Your task to perform on an android device: Go to Yahoo.com Image 0: 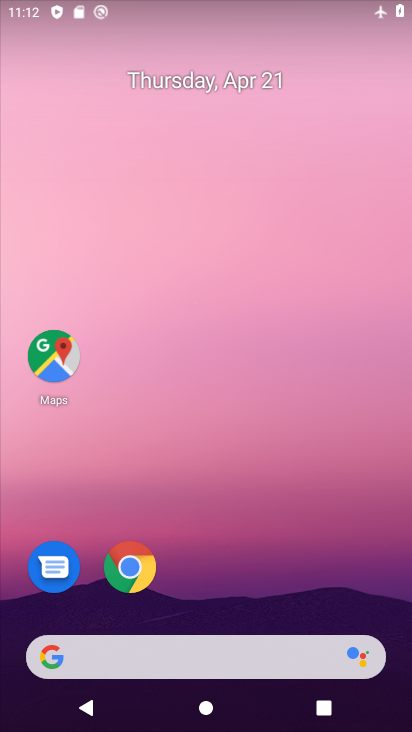
Step 0: click (147, 569)
Your task to perform on an android device: Go to Yahoo.com Image 1: 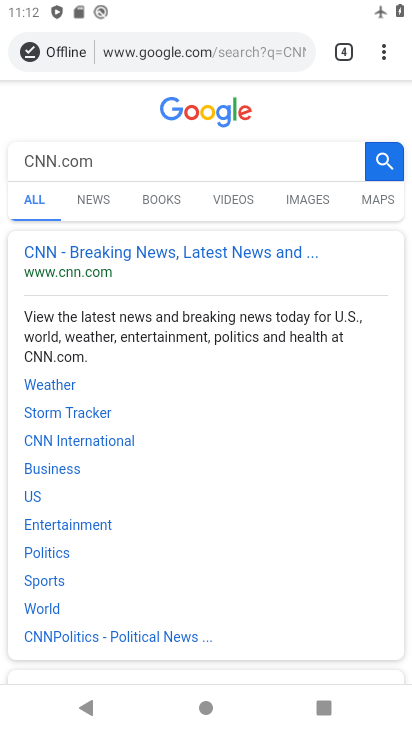
Step 1: click (174, 51)
Your task to perform on an android device: Go to Yahoo.com Image 2: 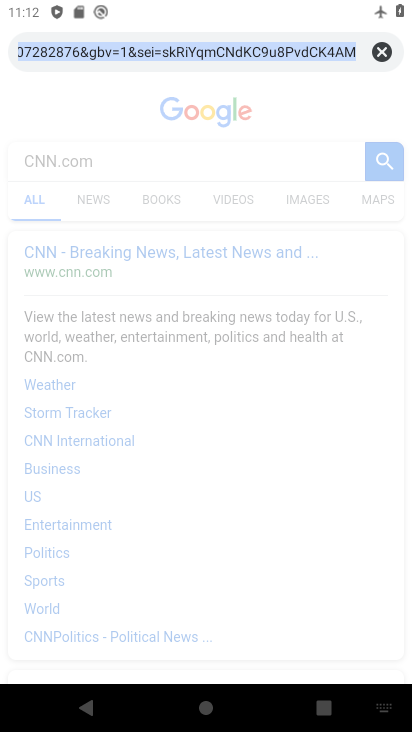
Step 2: type "yahoo.com"
Your task to perform on an android device: Go to Yahoo.com Image 3: 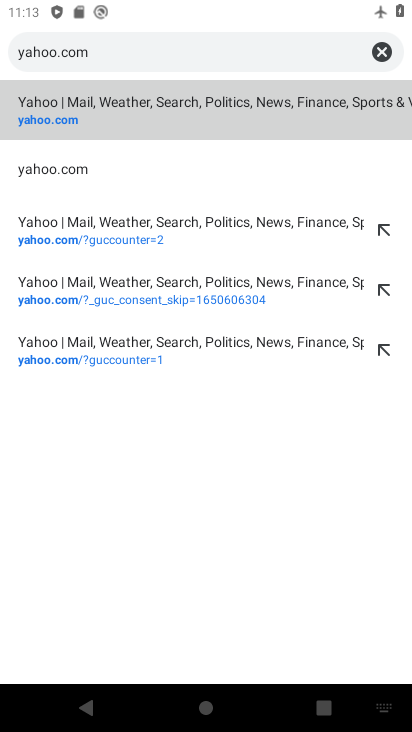
Step 3: click (79, 157)
Your task to perform on an android device: Go to Yahoo.com Image 4: 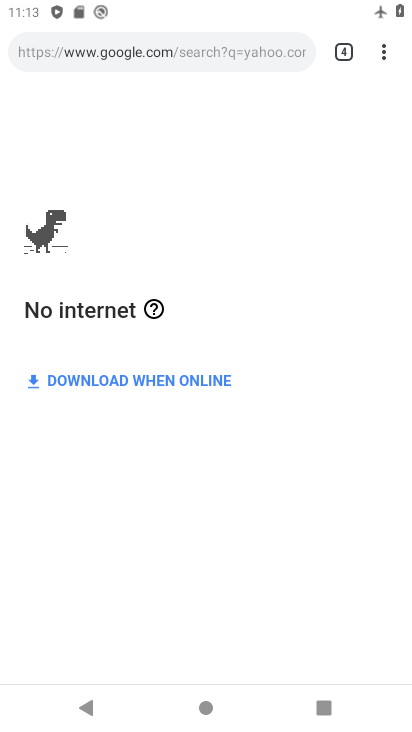
Step 4: task complete